Your task to perform on an android device: Show me productivity apps on the Play Store Image 0: 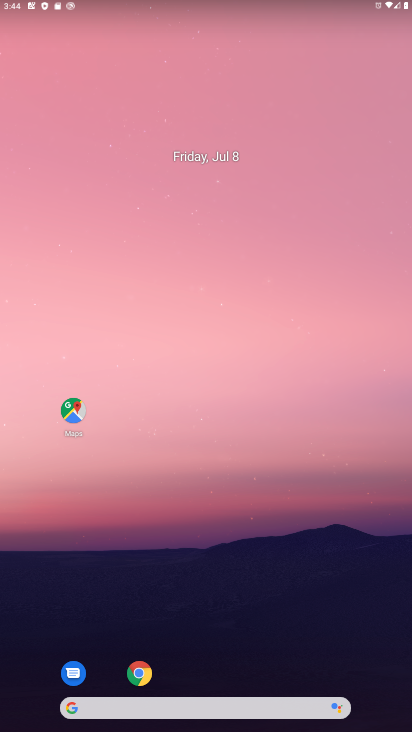
Step 0: drag from (199, 680) to (141, 242)
Your task to perform on an android device: Show me productivity apps on the Play Store Image 1: 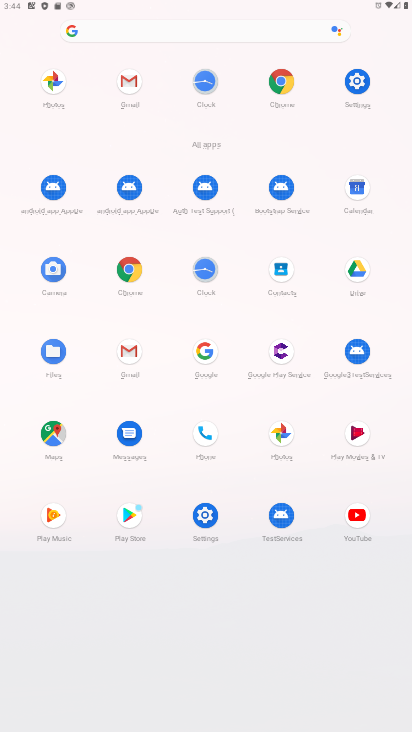
Step 1: click (132, 511)
Your task to perform on an android device: Show me productivity apps on the Play Store Image 2: 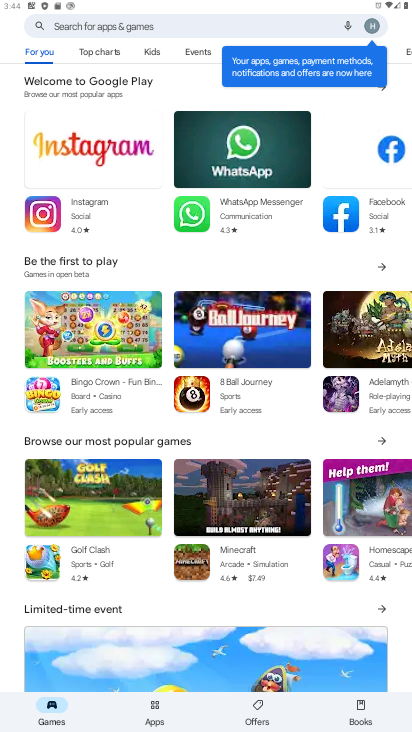
Step 2: click (242, 47)
Your task to perform on an android device: Show me productivity apps on the Play Store Image 3: 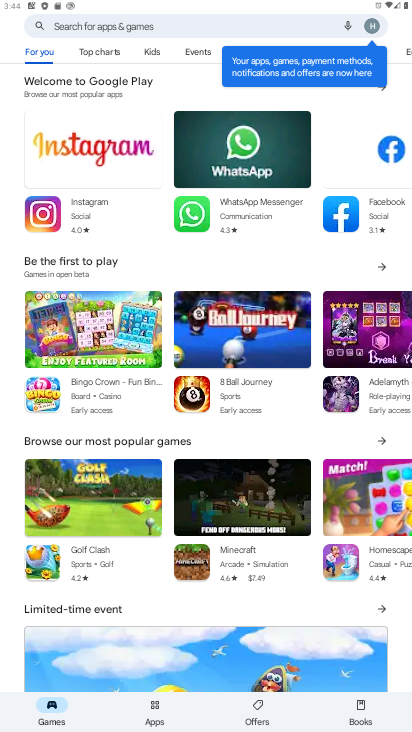
Step 3: click (280, 28)
Your task to perform on an android device: Show me productivity apps on the Play Store Image 4: 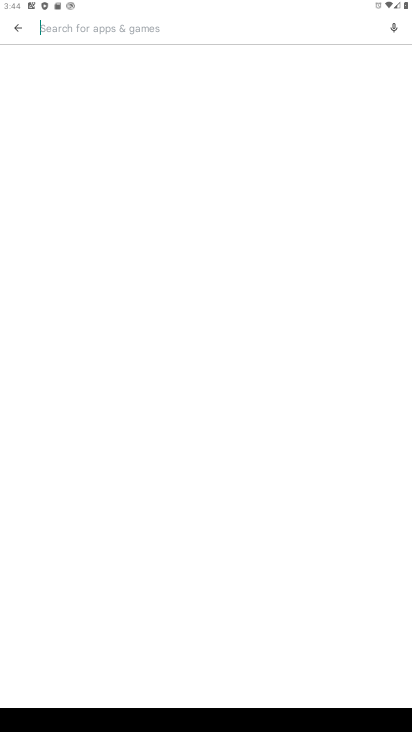
Step 4: press back button
Your task to perform on an android device: Show me productivity apps on the Play Store Image 5: 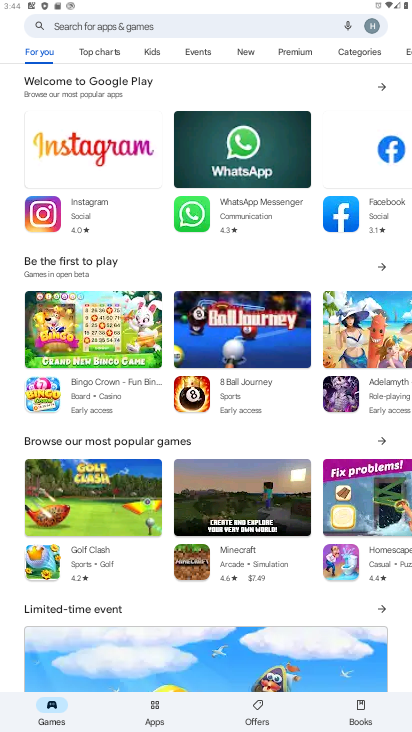
Step 5: click (360, 48)
Your task to perform on an android device: Show me productivity apps on the Play Store Image 6: 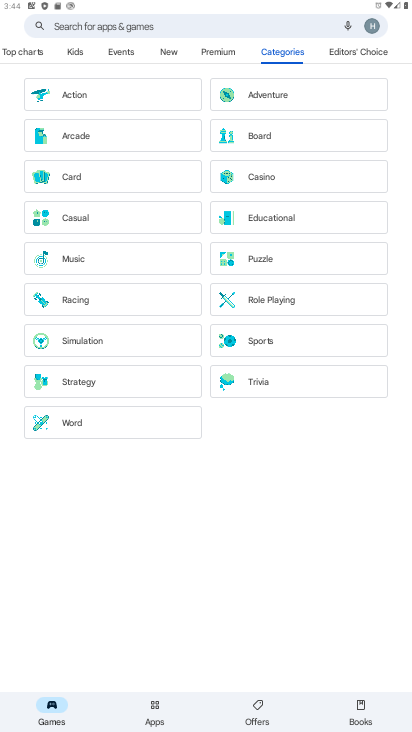
Step 6: click (191, 22)
Your task to perform on an android device: Show me productivity apps on the Play Store Image 7: 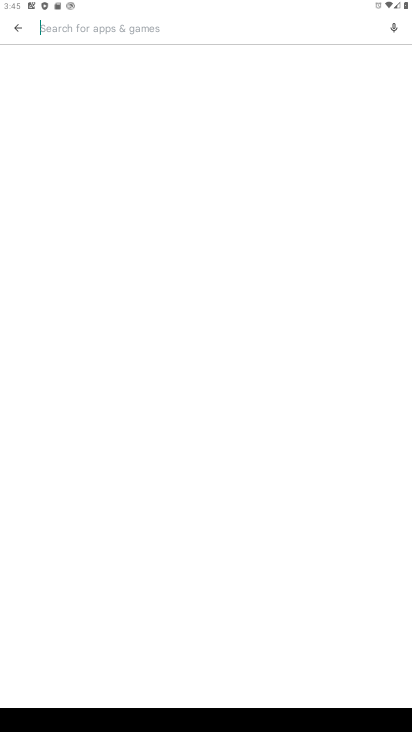
Step 7: type "productivity apps"
Your task to perform on an android device: Show me productivity apps on the Play Store Image 8: 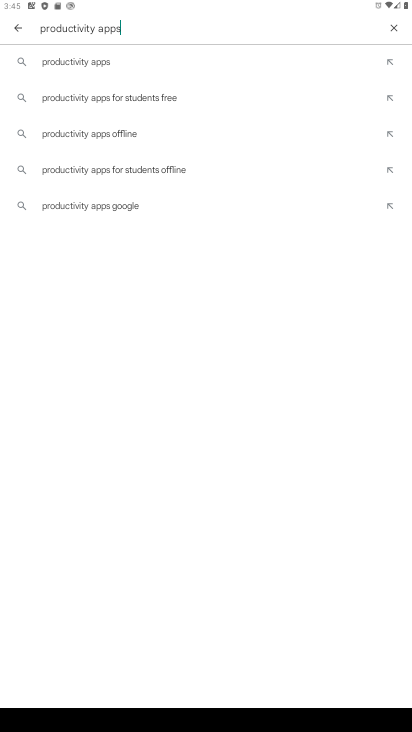
Step 8: click (105, 63)
Your task to perform on an android device: Show me productivity apps on the Play Store Image 9: 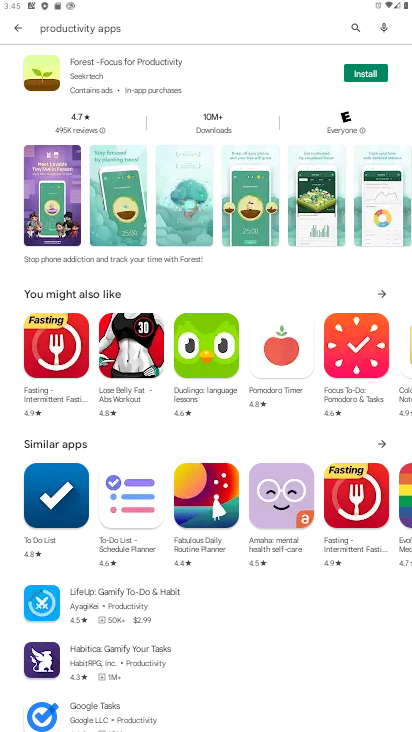
Step 9: task complete